Your task to perform on an android device: Clear all items from cart on bestbuy.com. Add "razer blade" to the cart on bestbuy.com Image 0: 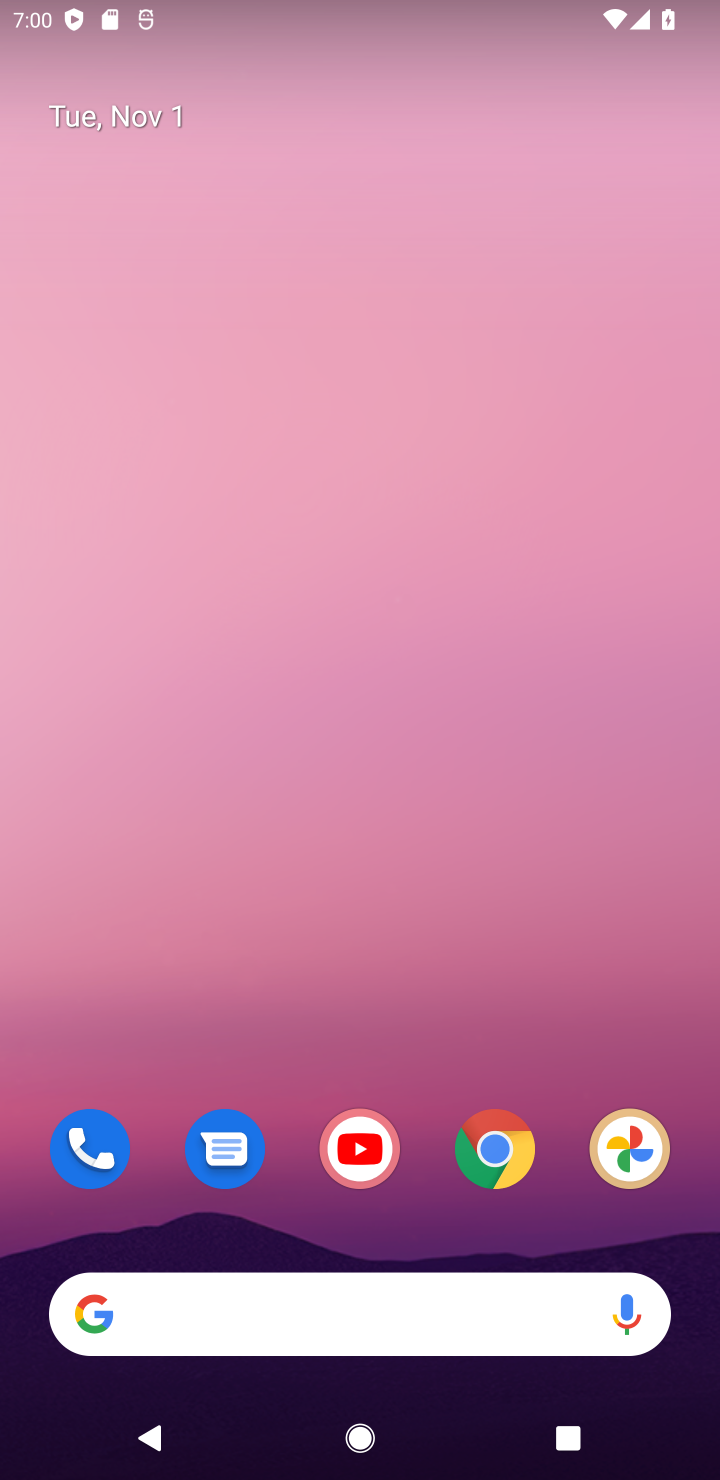
Step 0: drag from (409, 1191) to (449, 200)
Your task to perform on an android device: Clear all items from cart on bestbuy.com. Add "razer blade" to the cart on bestbuy.com Image 1: 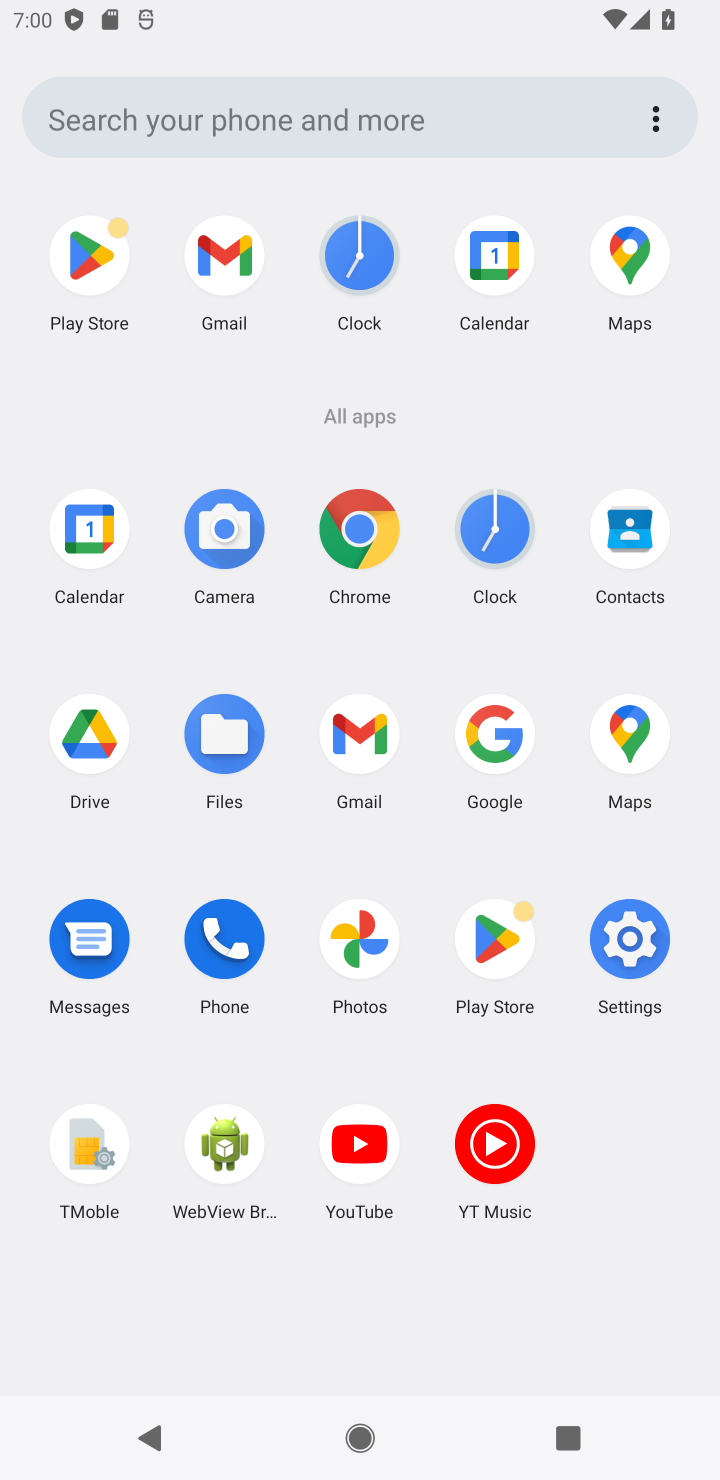
Step 1: click (351, 537)
Your task to perform on an android device: Clear all items from cart on bestbuy.com. Add "razer blade" to the cart on bestbuy.com Image 2: 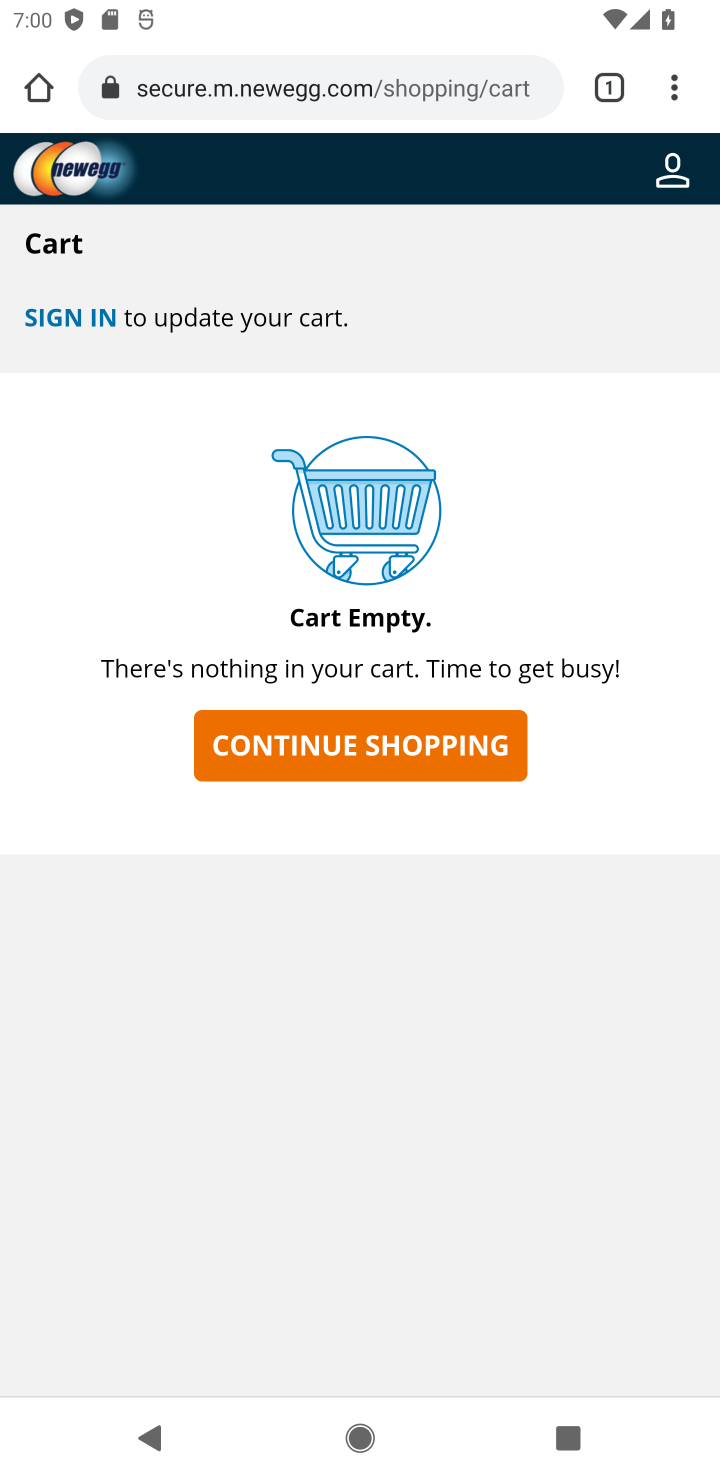
Step 2: click (376, 83)
Your task to perform on an android device: Clear all items from cart on bestbuy.com. Add "razer blade" to the cart on bestbuy.com Image 3: 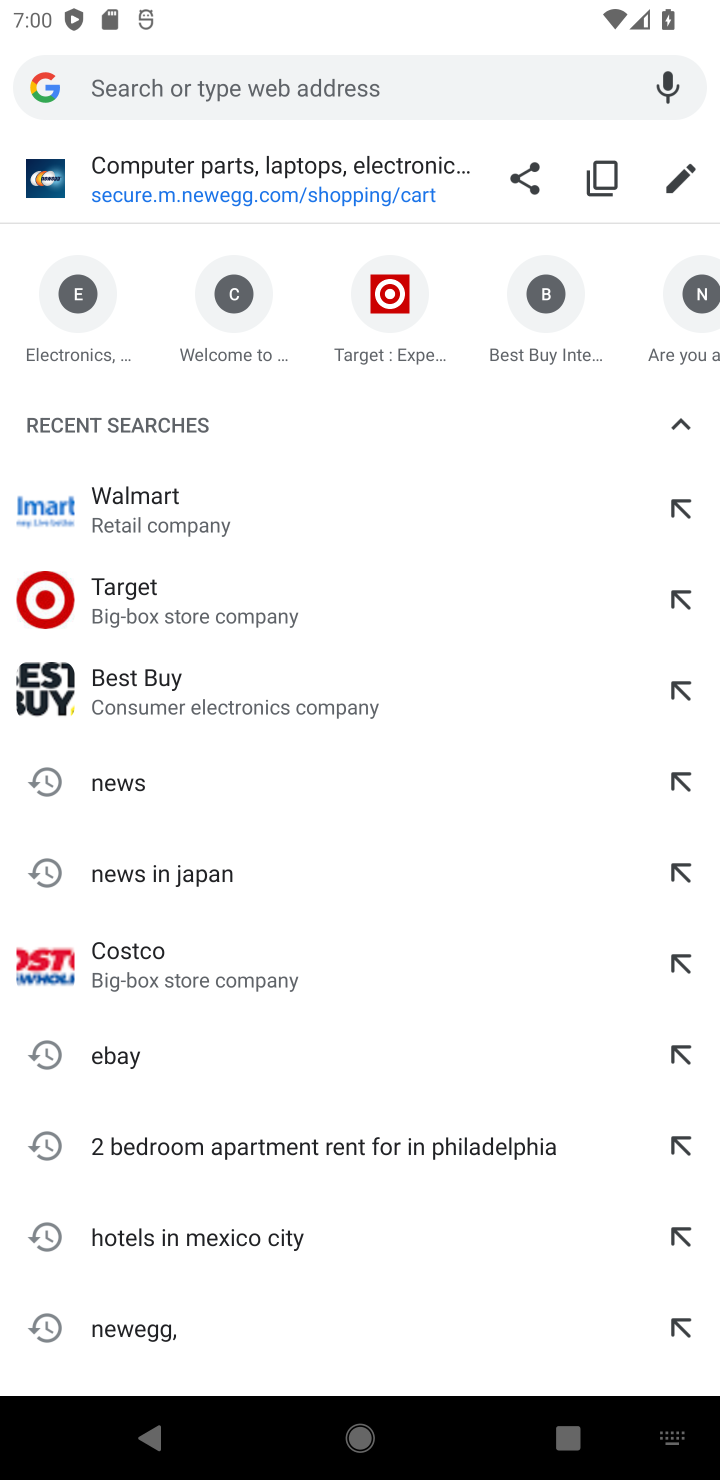
Step 3: type "bestbuy.com"
Your task to perform on an android device: Clear all items from cart on bestbuy.com. Add "razer blade" to the cart on bestbuy.com Image 4: 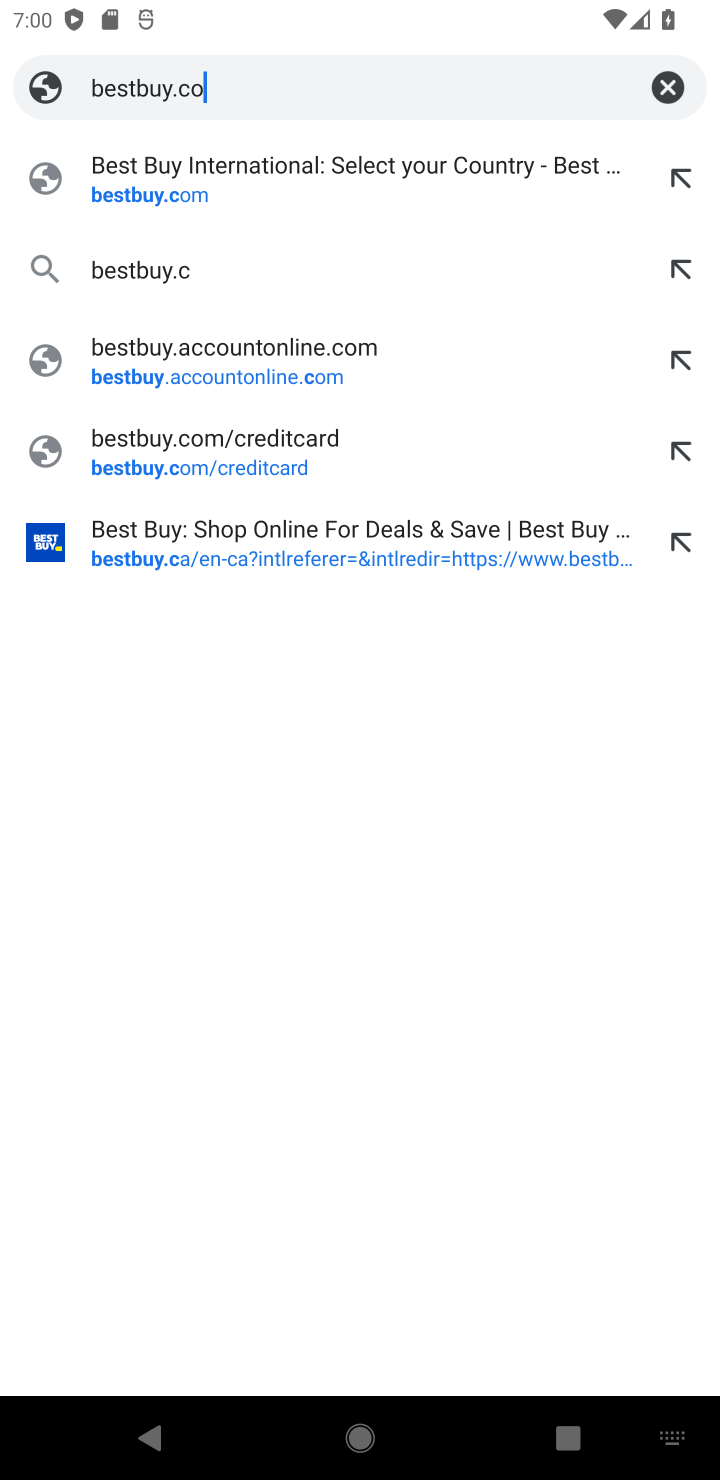
Step 4: press enter
Your task to perform on an android device: Clear all items from cart on bestbuy.com. Add "razer blade" to the cart on bestbuy.com Image 5: 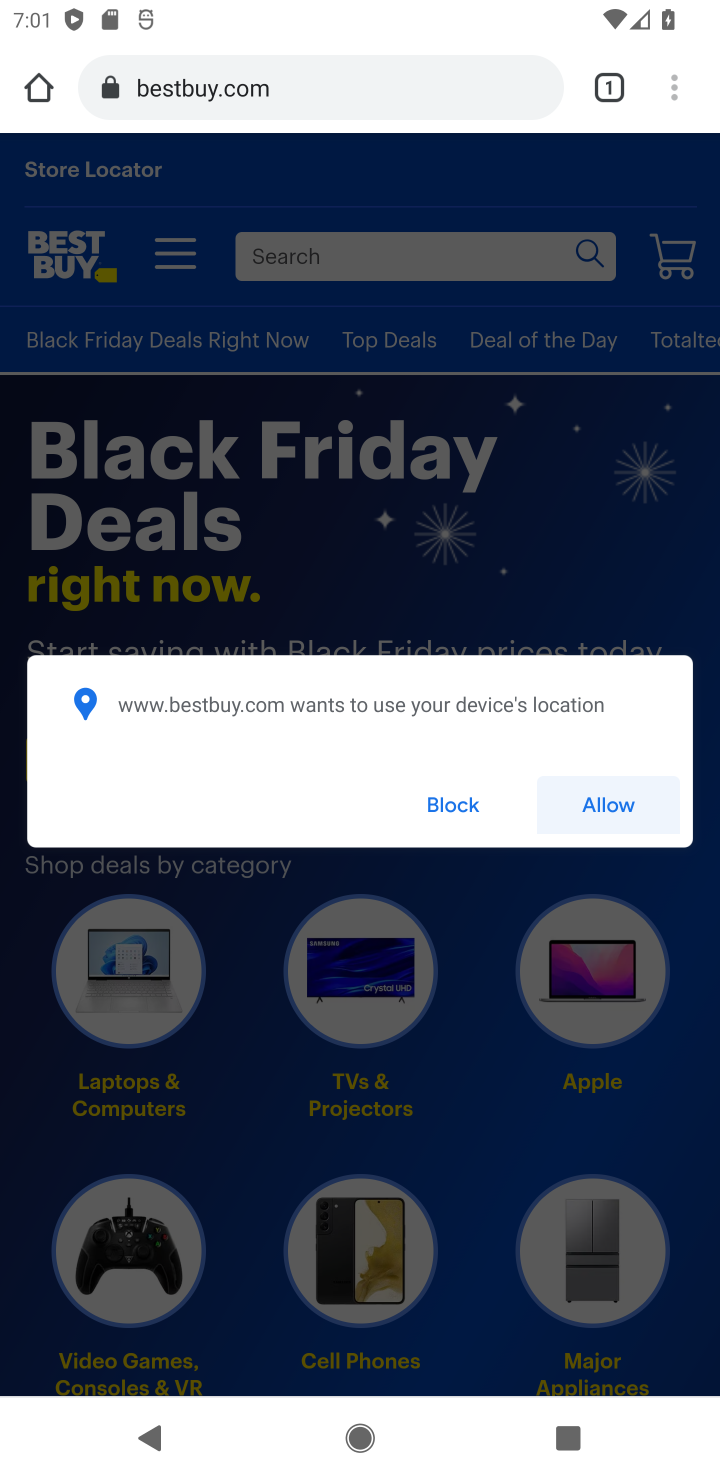
Step 5: click (449, 797)
Your task to perform on an android device: Clear all items from cart on bestbuy.com. Add "razer blade" to the cart on bestbuy.com Image 6: 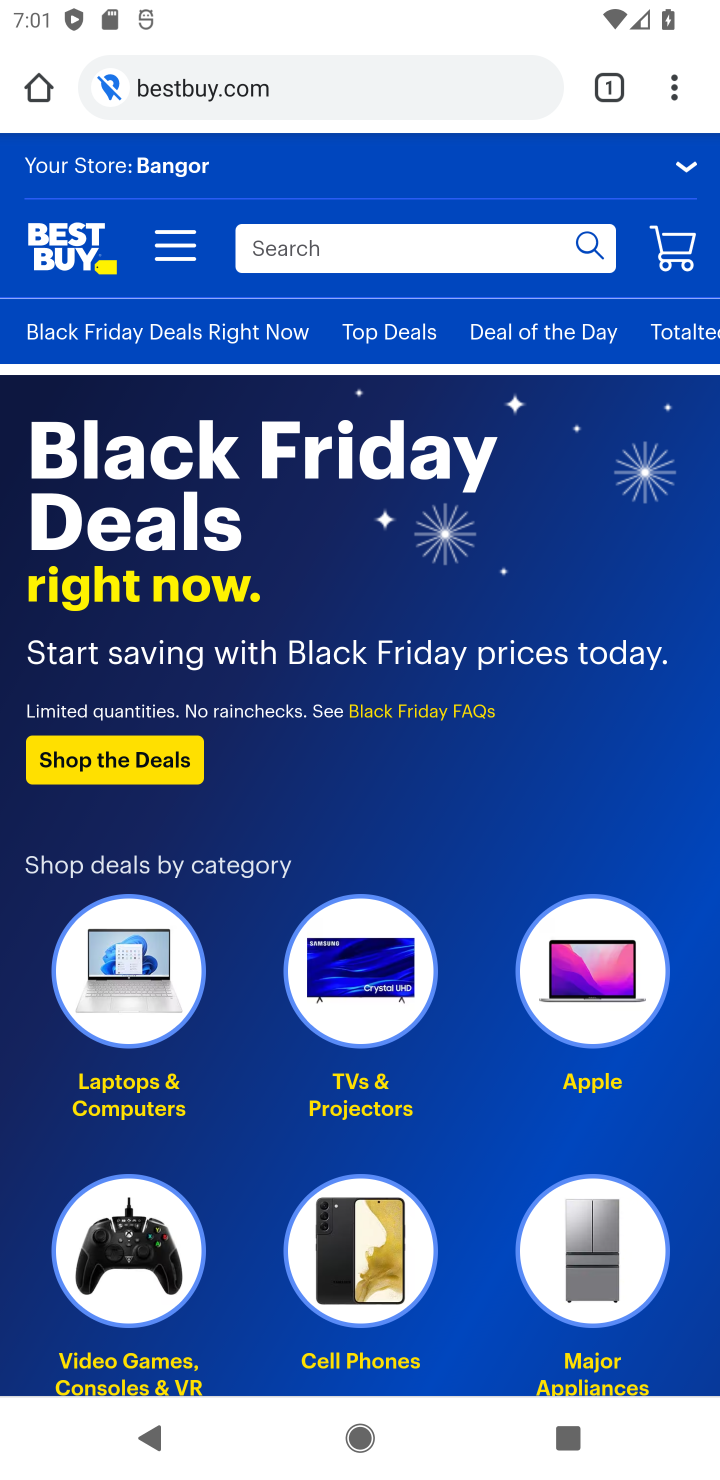
Step 6: click (689, 250)
Your task to perform on an android device: Clear all items from cart on bestbuy.com. Add "razer blade" to the cart on bestbuy.com Image 7: 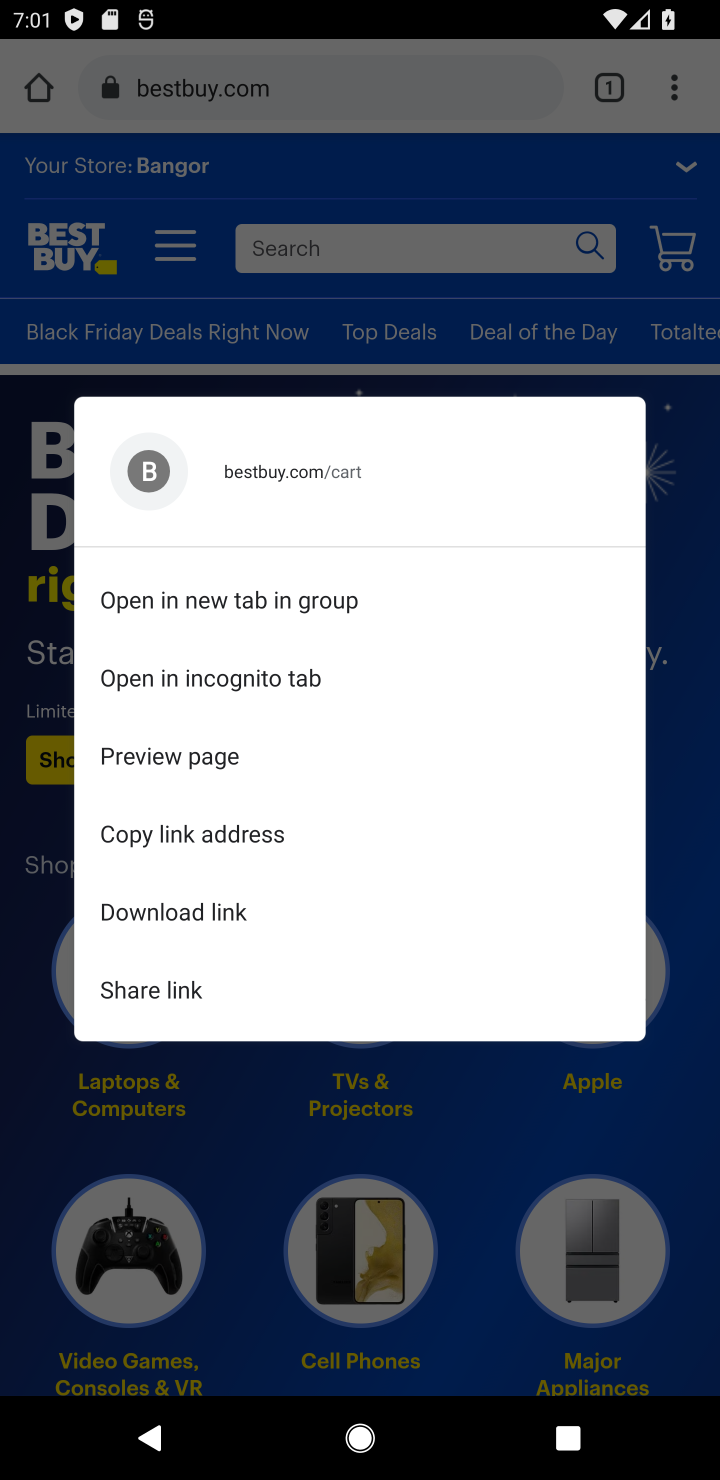
Step 7: click (665, 257)
Your task to perform on an android device: Clear all items from cart on bestbuy.com. Add "razer blade" to the cart on bestbuy.com Image 8: 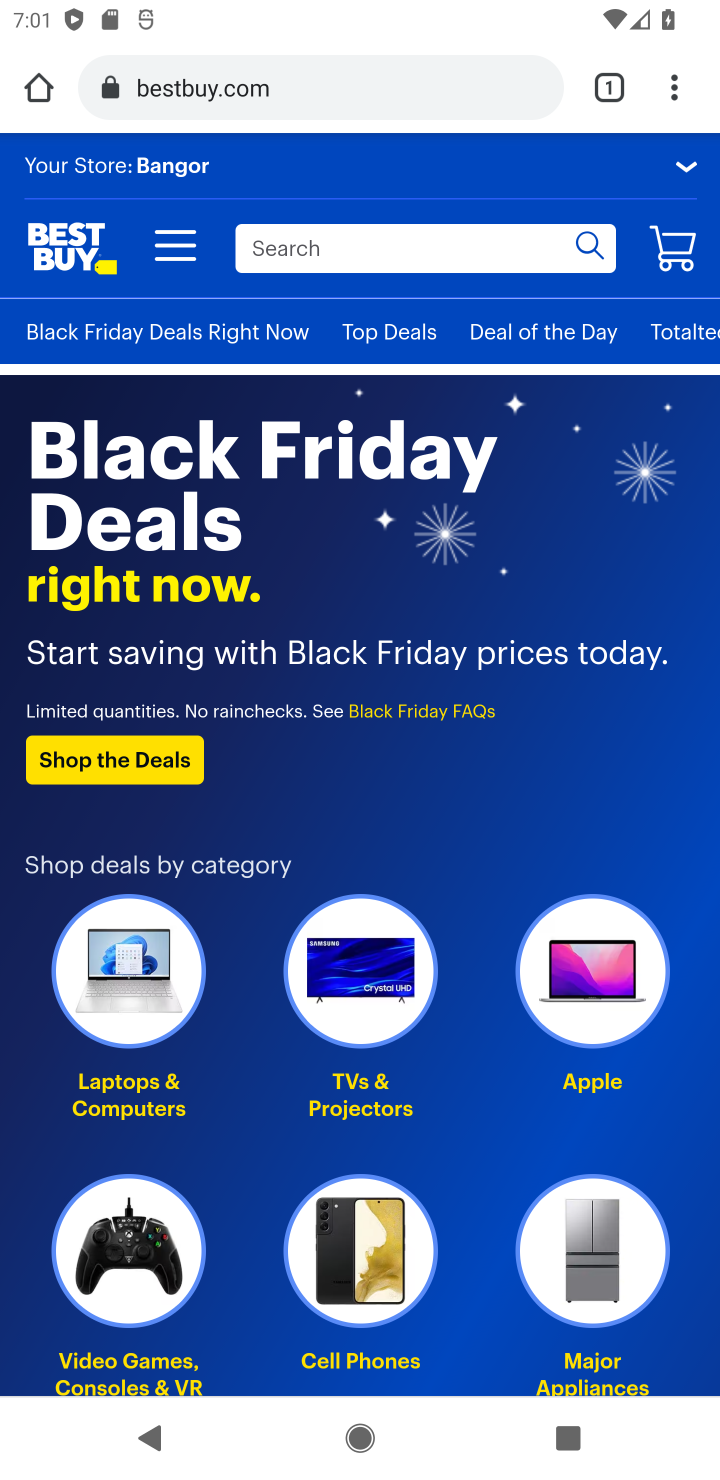
Step 8: click (665, 257)
Your task to perform on an android device: Clear all items from cart on bestbuy.com. Add "razer blade" to the cart on bestbuy.com Image 9: 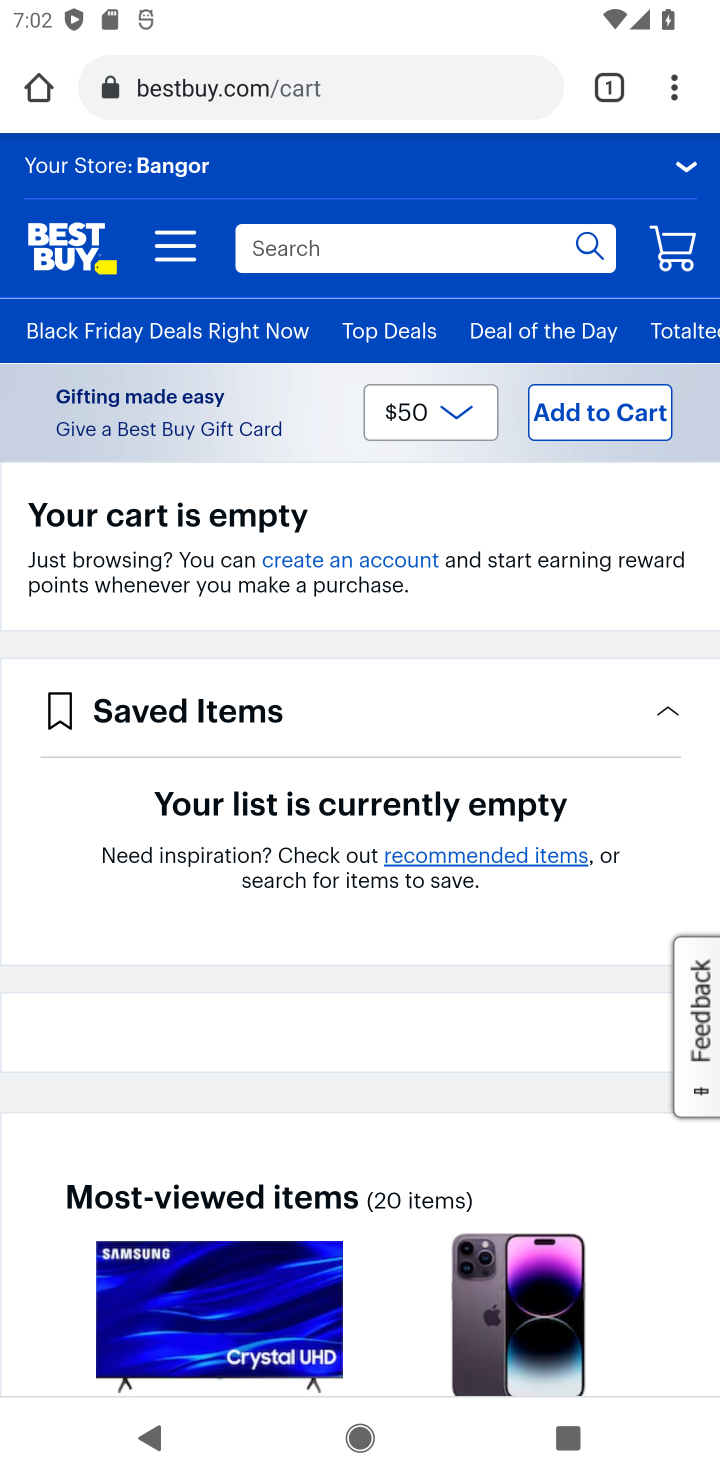
Step 9: click (437, 232)
Your task to perform on an android device: Clear all items from cart on bestbuy.com. Add "razer blade" to the cart on bestbuy.com Image 10: 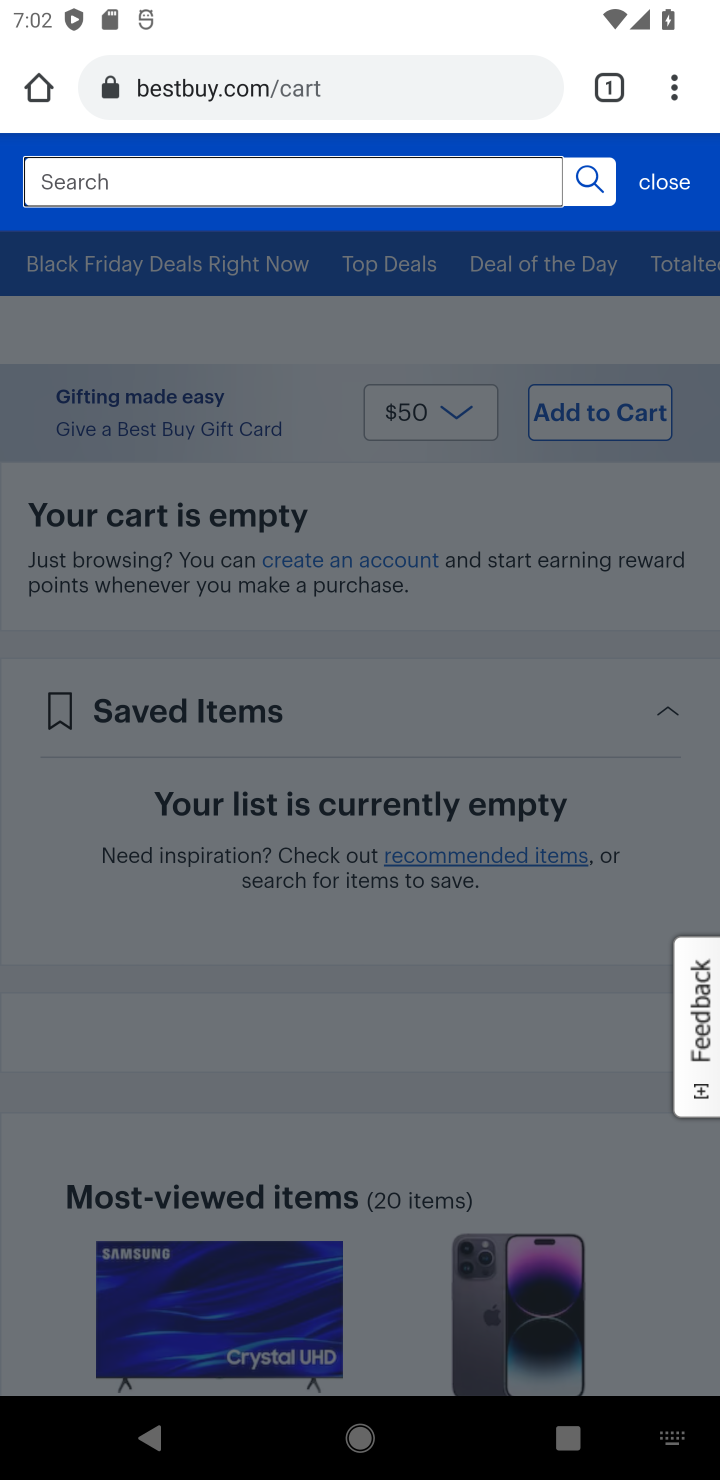
Step 10: type "razer blade"
Your task to perform on an android device: Clear all items from cart on bestbuy.com. Add "razer blade" to the cart on bestbuy.com Image 11: 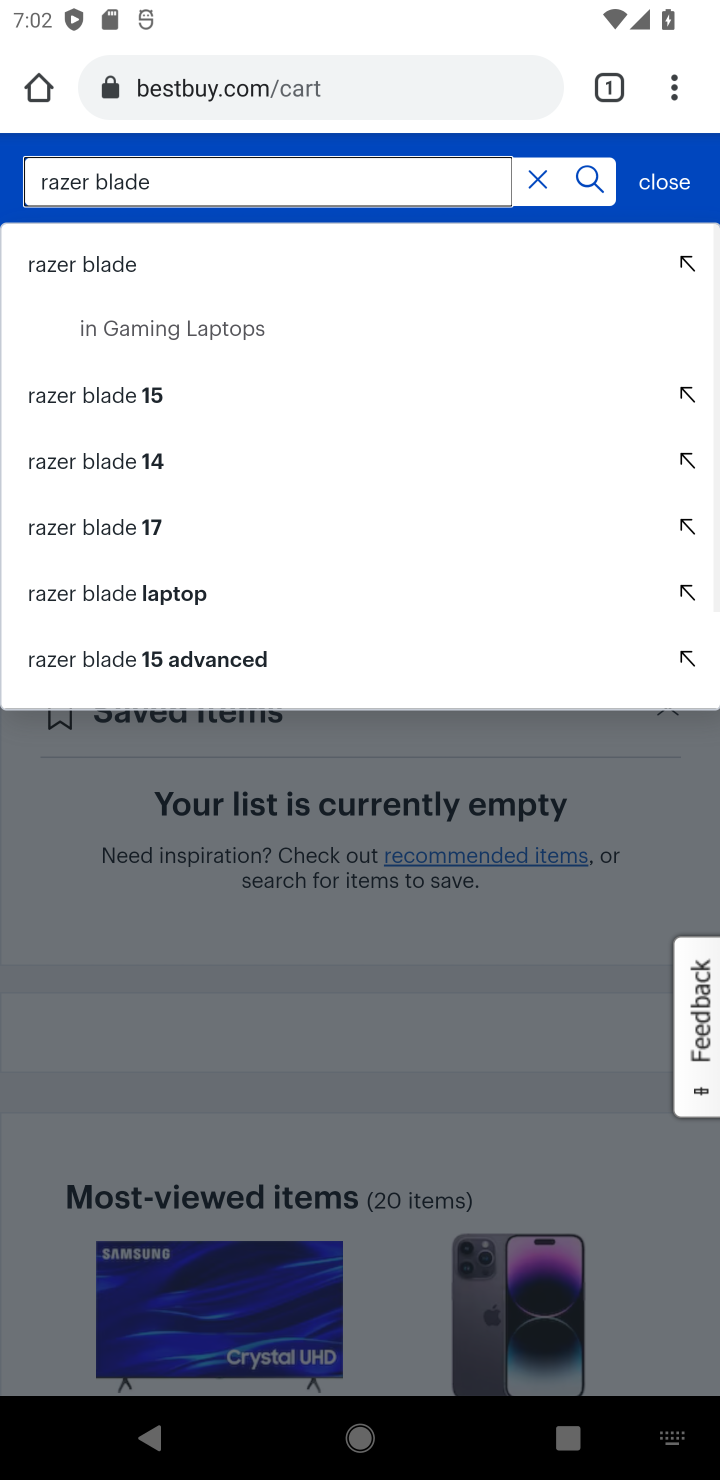
Step 11: press enter
Your task to perform on an android device: Clear all items from cart on bestbuy.com. Add "razer blade" to the cart on bestbuy.com Image 12: 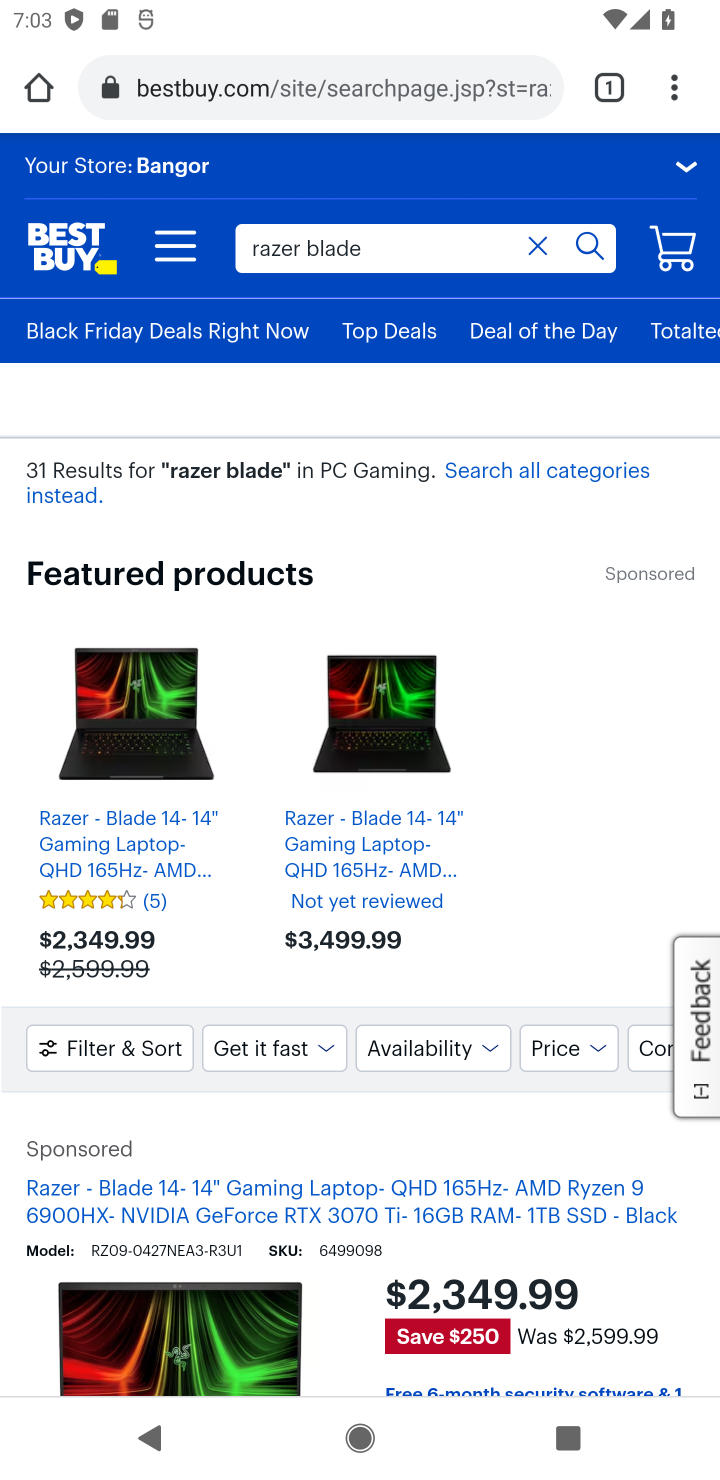
Step 12: drag from (493, 918) to (506, 328)
Your task to perform on an android device: Clear all items from cart on bestbuy.com. Add "razer blade" to the cart on bestbuy.com Image 13: 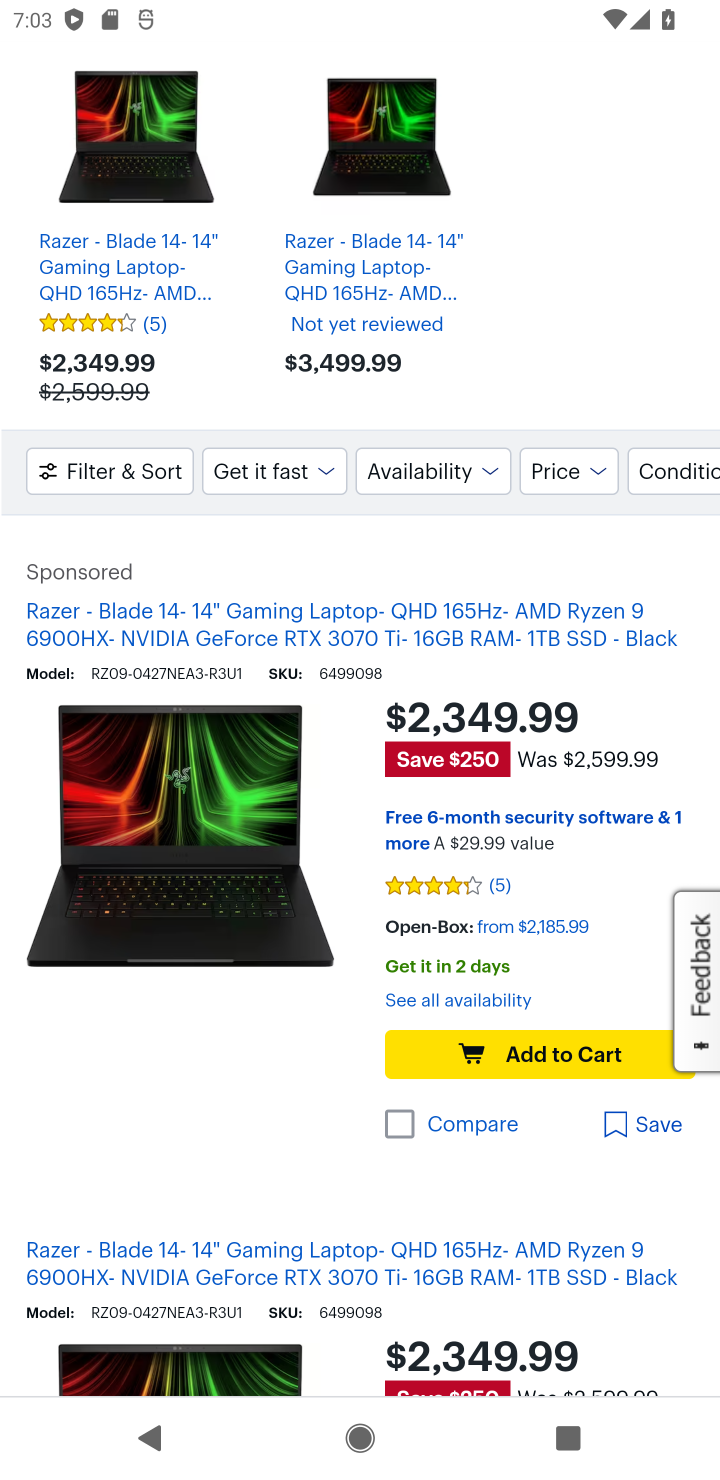
Step 13: drag from (457, 1218) to (442, 555)
Your task to perform on an android device: Clear all items from cart on bestbuy.com. Add "razer blade" to the cart on bestbuy.com Image 14: 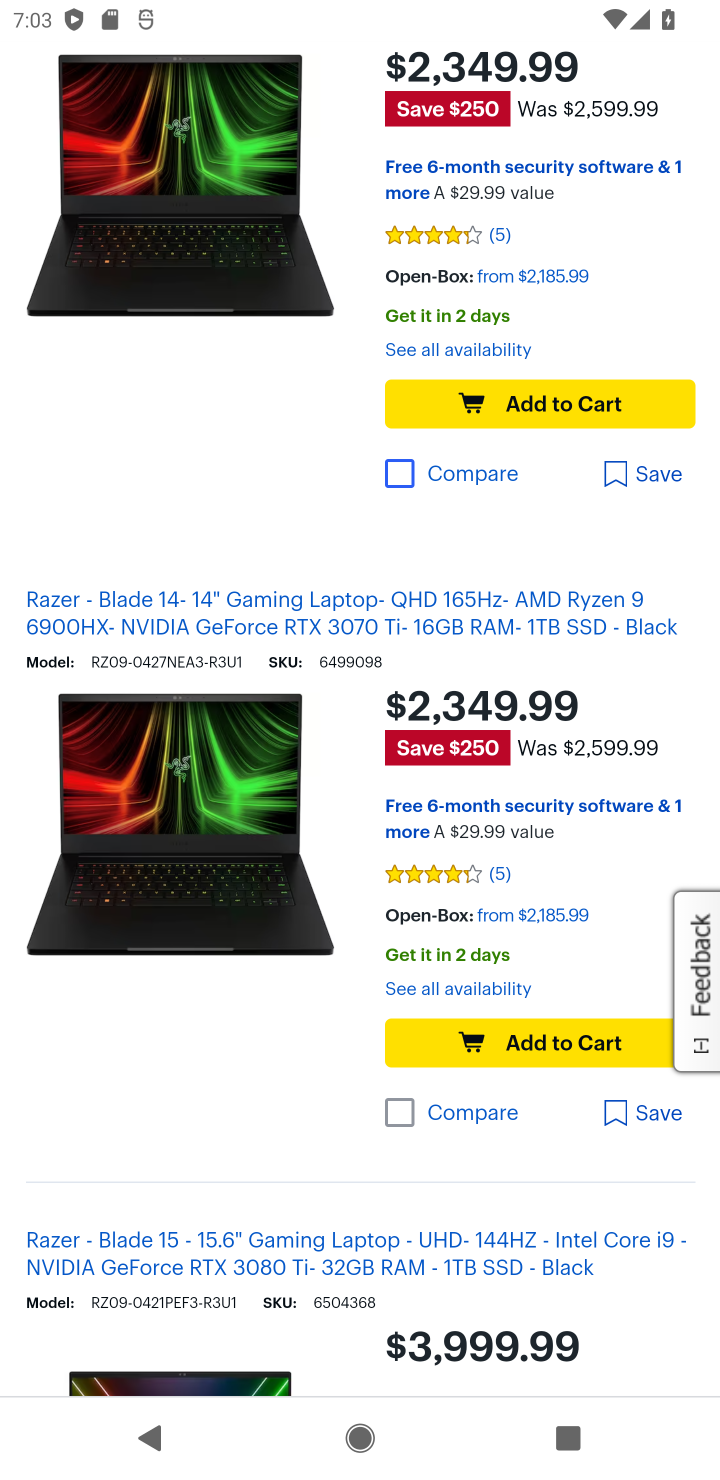
Step 14: click (499, 1032)
Your task to perform on an android device: Clear all items from cart on bestbuy.com. Add "razer blade" to the cart on bestbuy.com Image 15: 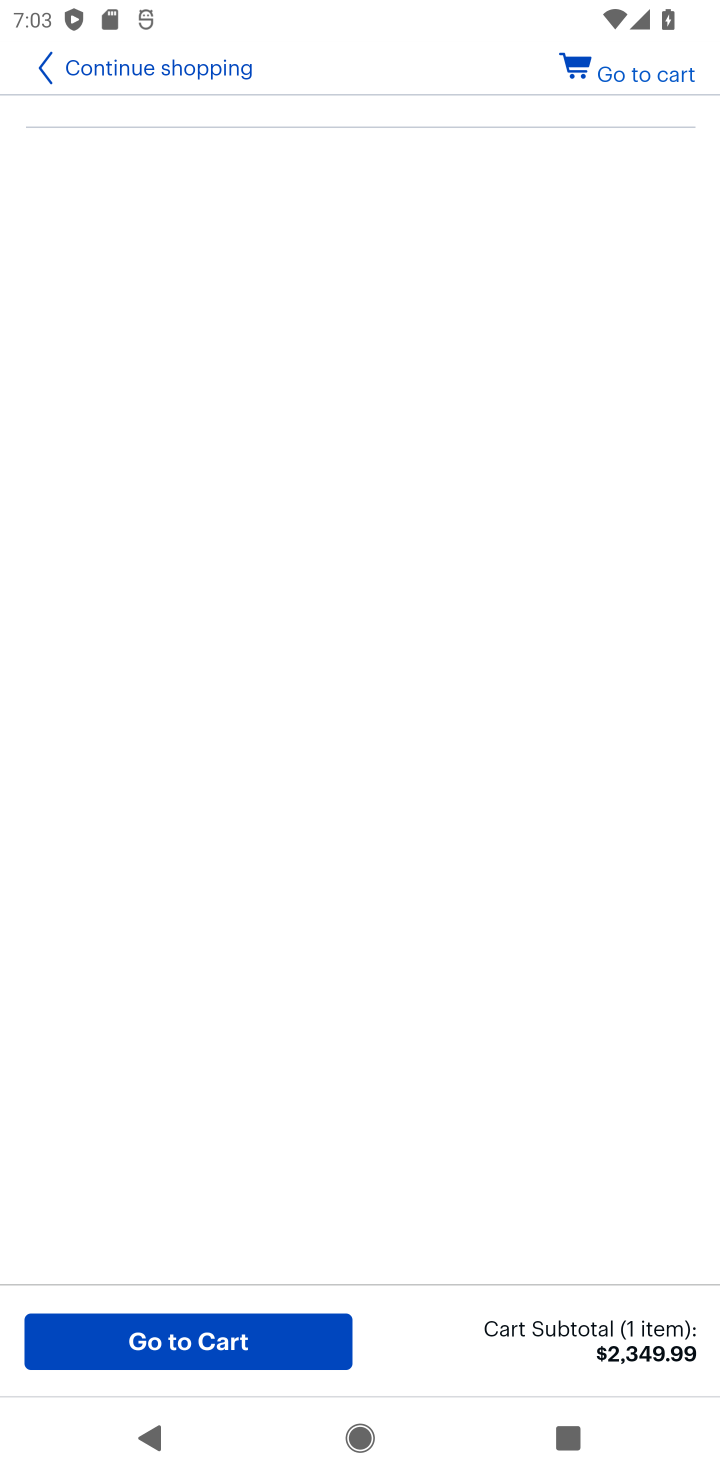
Step 15: task complete